Your task to perform on an android device: Go to Yahoo.com Image 0: 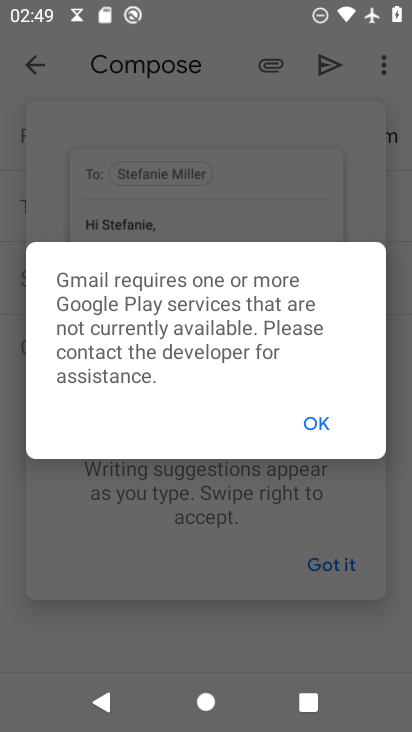
Step 0: press home button
Your task to perform on an android device: Go to Yahoo.com Image 1: 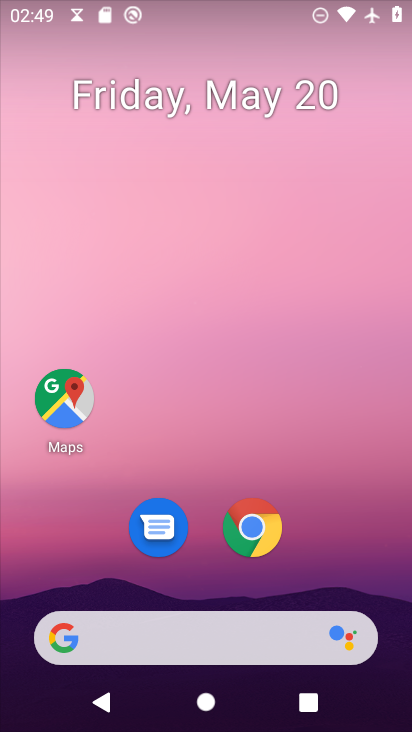
Step 1: click (238, 533)
Your task to perform on an android device: Go to Yahoo.com Image 2: 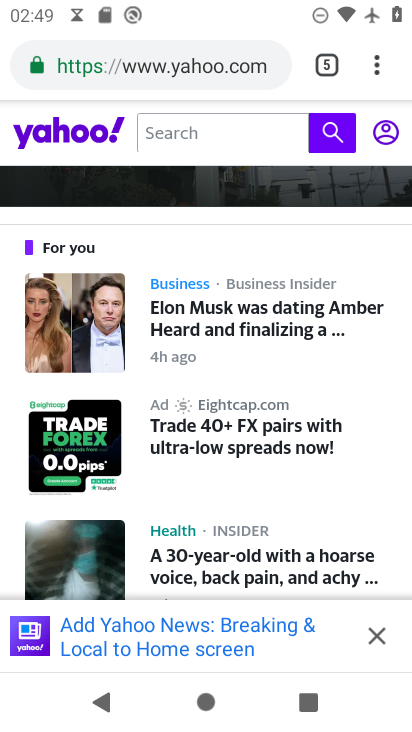
Step 2: task complete